Your task to perform on an android device: Go to CNN.com Image 0: 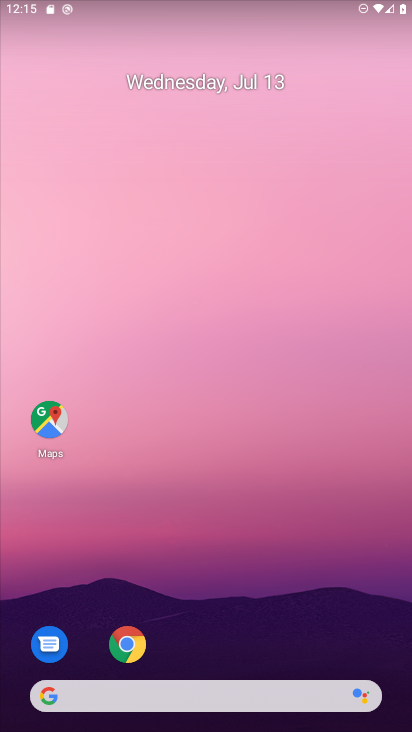
Step 0: click (140, 708)
Your task to perform on an android device: Go to CNN.com Image 1: 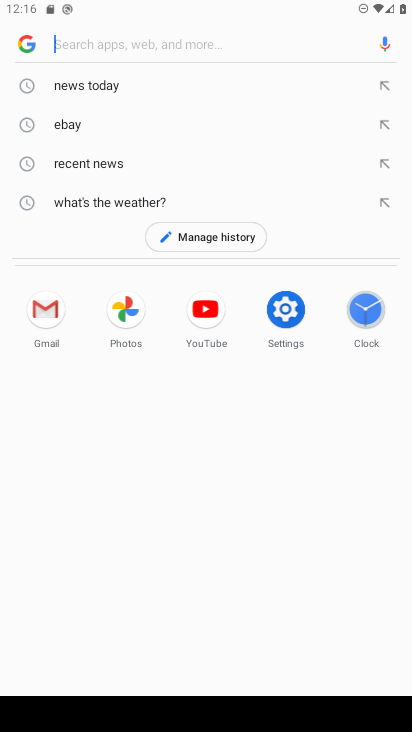
Step 1: type "cnn.com"
Your task to perform on an android device: Go to CNN.com Image 2: 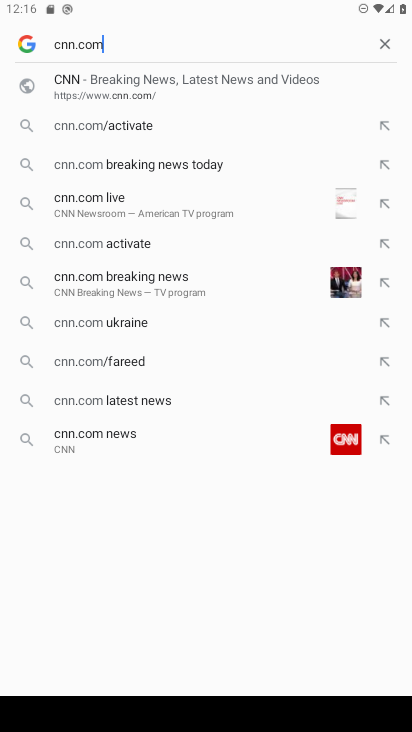
Step 2: click (177, 89)
Your task to perform on an android device: Go to CNN.com Image 3: 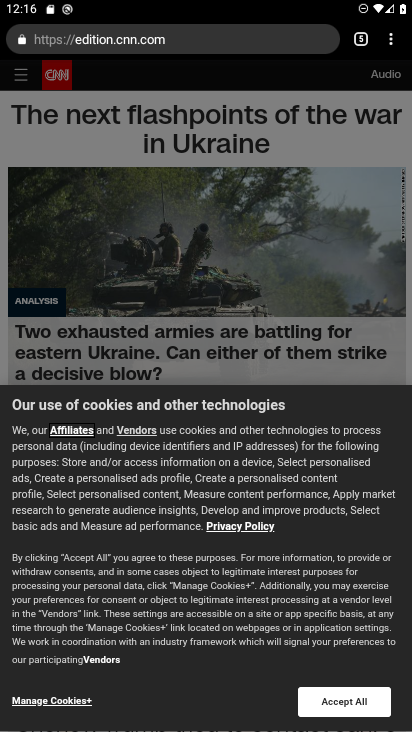
Step 3: task complete